Your task to perform on an android device: Go to Yahoo.com Image 0: 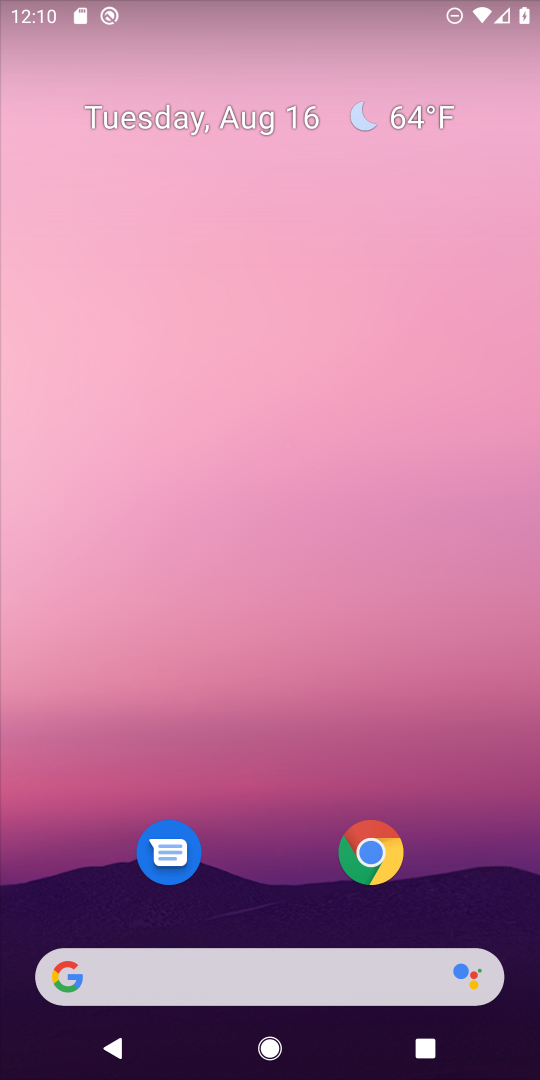
Step 0: click (362, 857)
Your task to perform on an android device: Go to Yahoo.com Image 1: 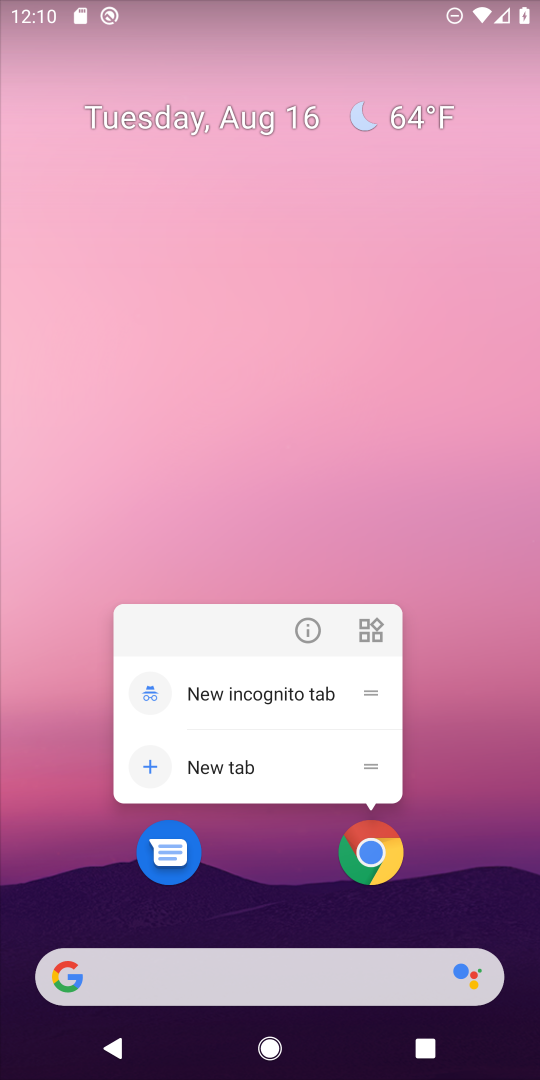
Step 1: click (360, 854)
Your task to perform on an android device: Go to Yahoo.com Image 2: 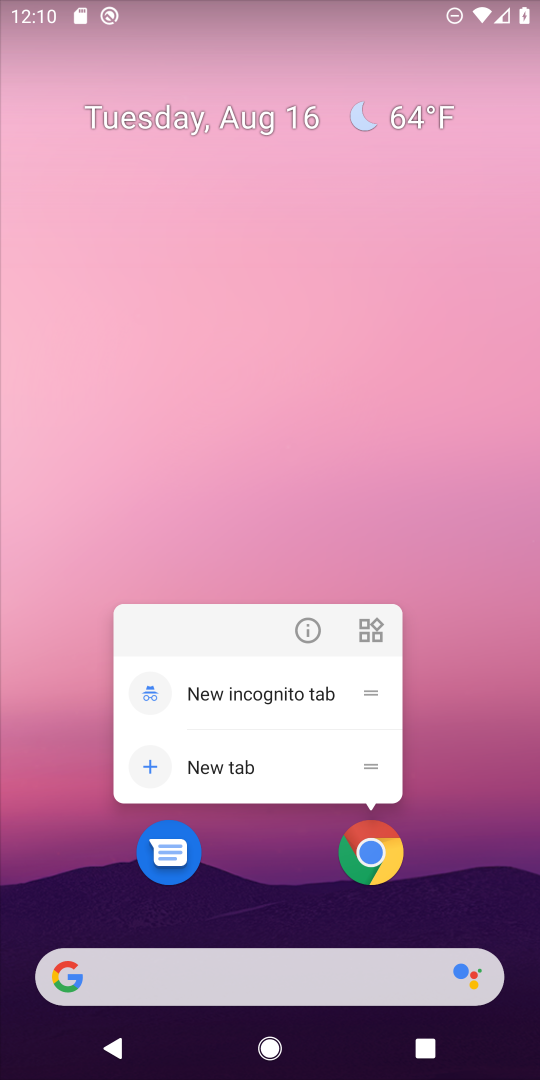
Step 2: click (379, 862)
Your task to perform on an android device: Go to Yahoo.com Image 3: 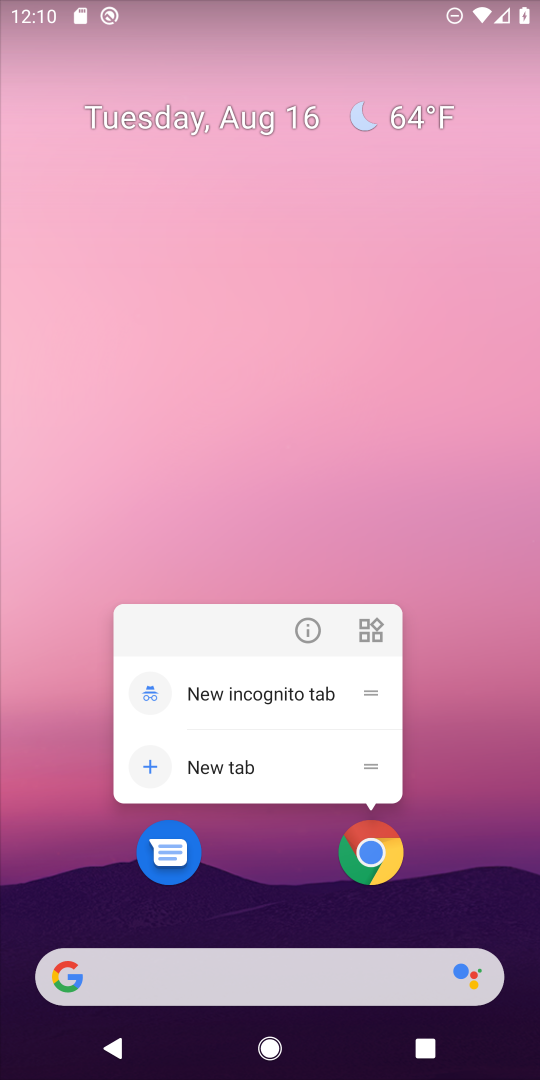
Step 3: click (378, 857)
Your task to perform on an android device: Go to Yahoo.com Image 4: 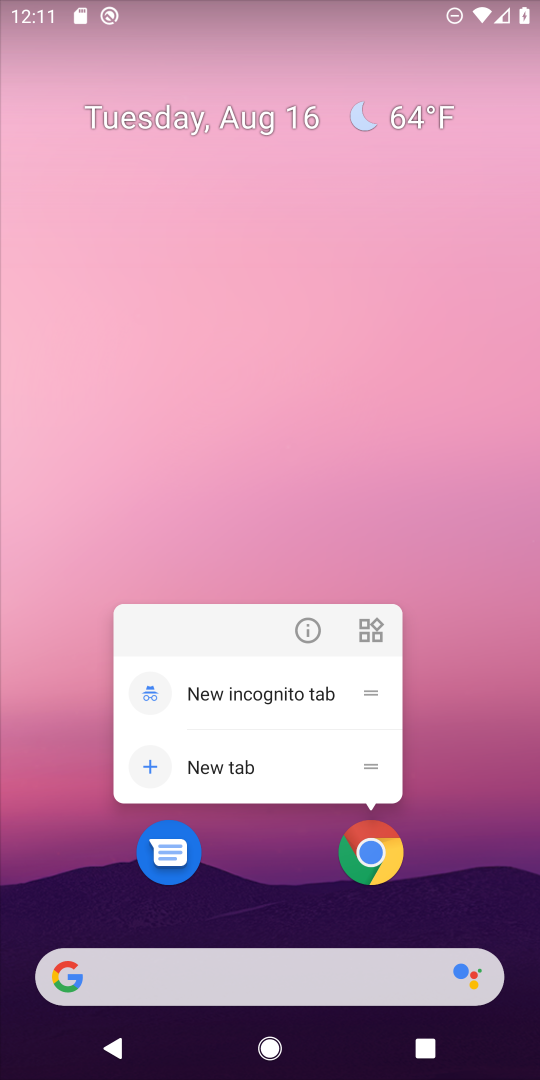
Step 4: click (371, 859)
Your task to perform on an android device: Go to Yahoo.com Image 5: 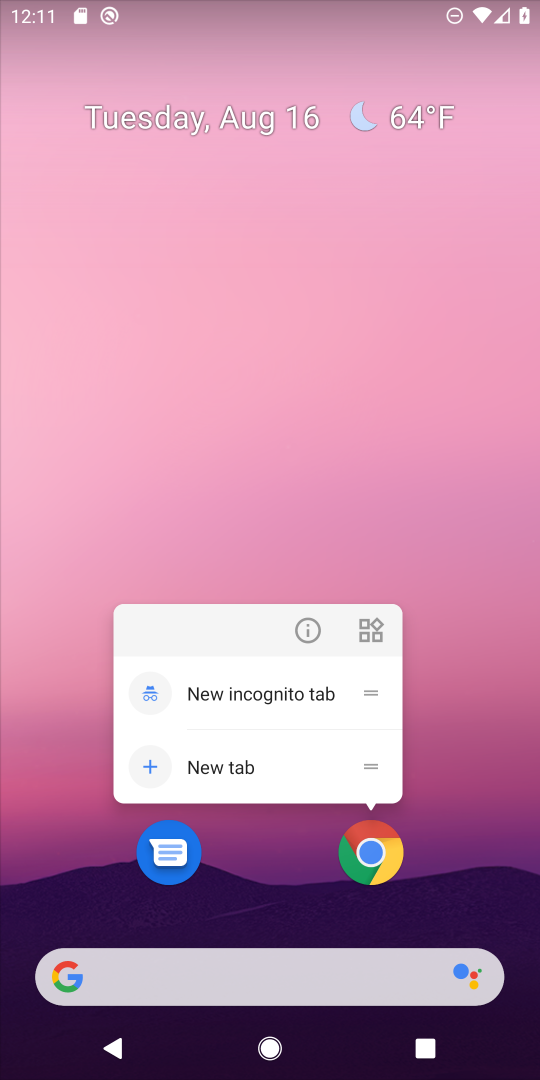
Step 5: click (370, 854)
Your task to perform on an android device: Go to Yahoo.com Image 6: 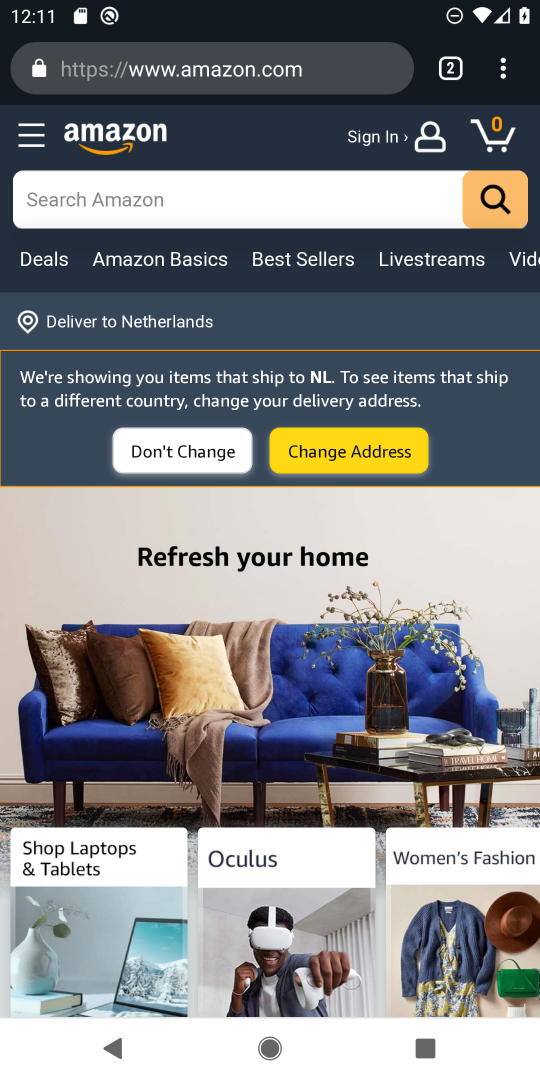
Step 6: click (455, 66)
Your task to perform on an android device: Go to Yahoo.com Image 7: 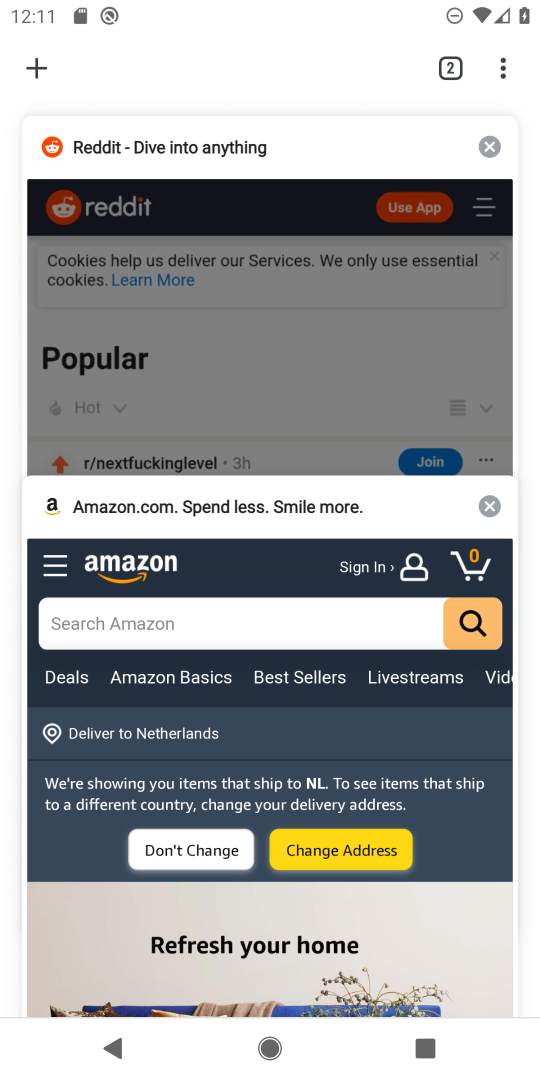
Step 7: click (34, 61)
Your task to perform on an android device: Go to Yahoo.com Image 8: 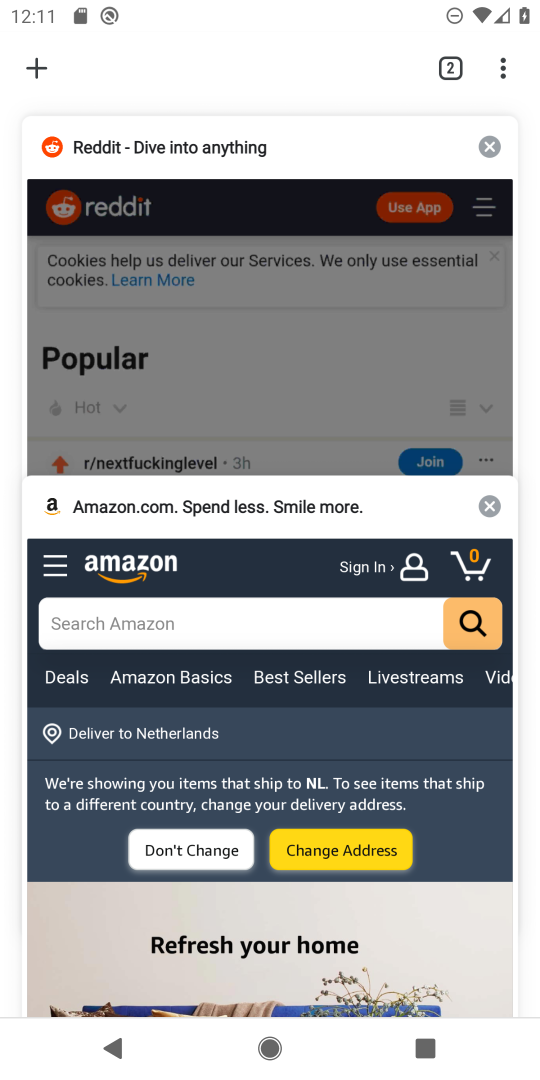
Step 8: click (41, 69)
Your task to perform on an android device: Go to Yahoo.com Image 9: 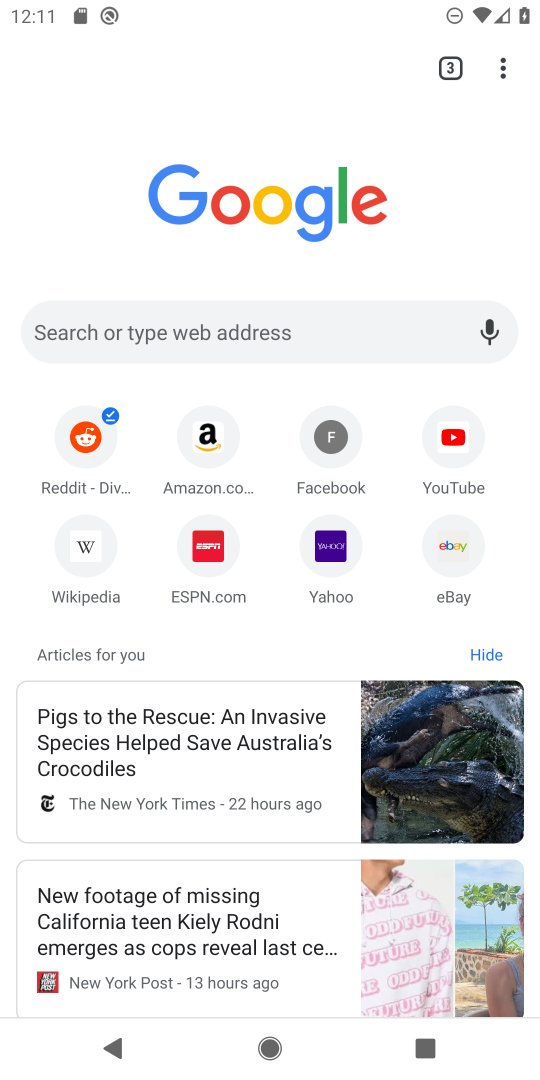
Step 9: click (337, 564)
Your task to perform on an android device: Go to Yahoo.com Image 10: 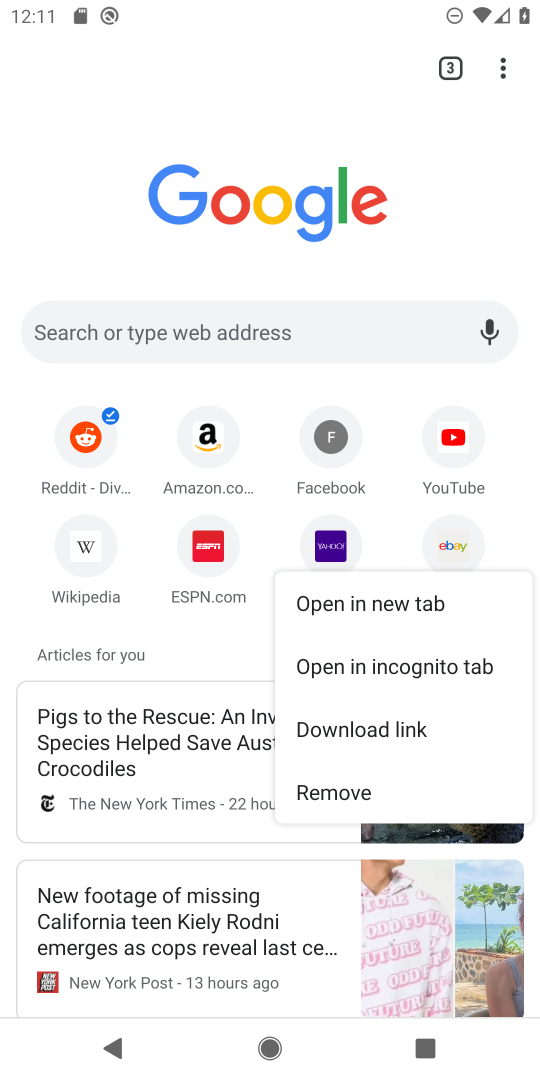
Step 10: click (343, 538)
Your task to perform on an android device: Go to Yahoo.com Image 11: 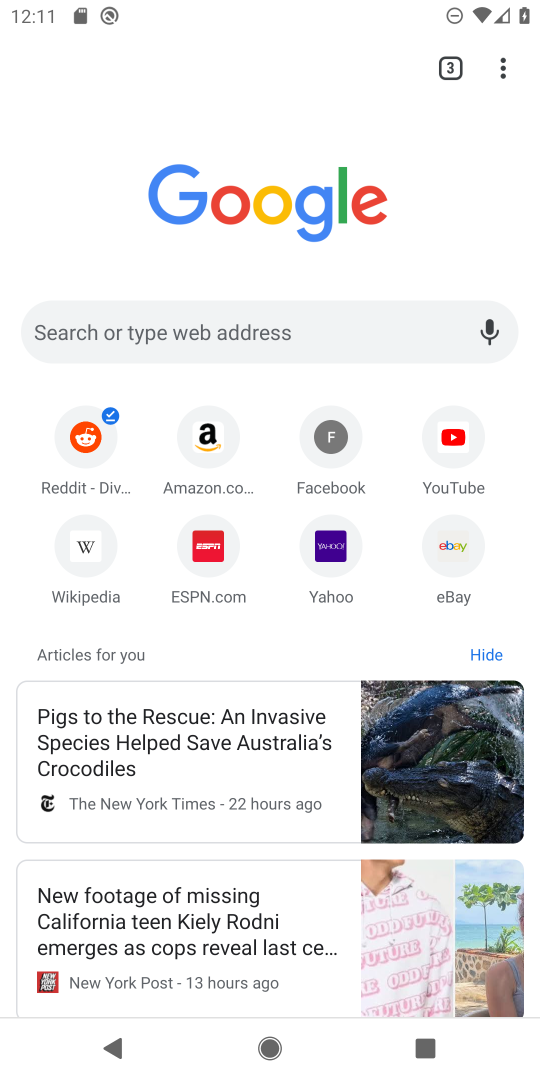
Step 11: click (334, 556)
Your task to perform on an android device: Go to Yahoo.com Image 12: 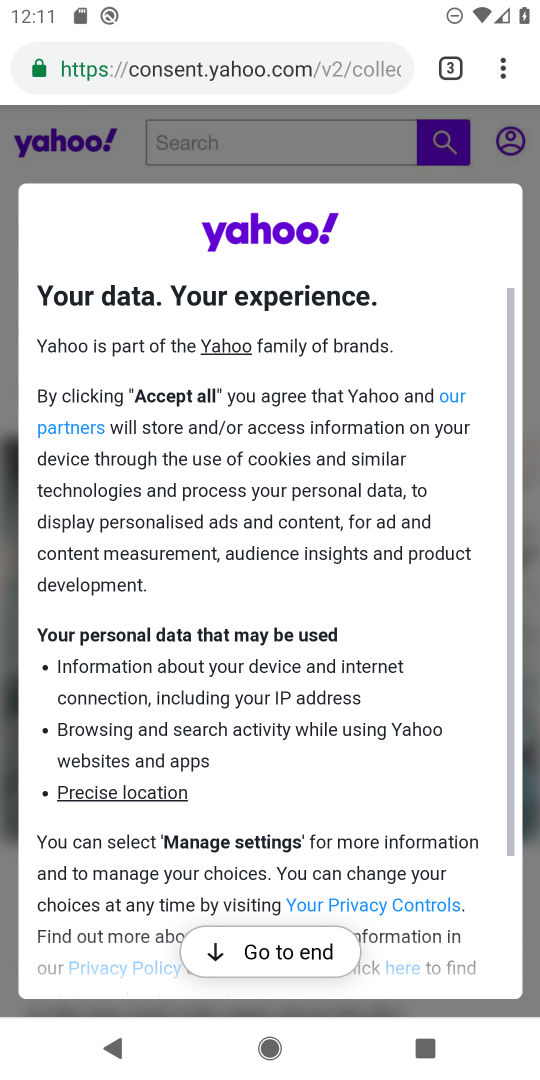
Step 12: task complete